Your task to perform on an android device: turn on the 12-hour format for clock Image 0: 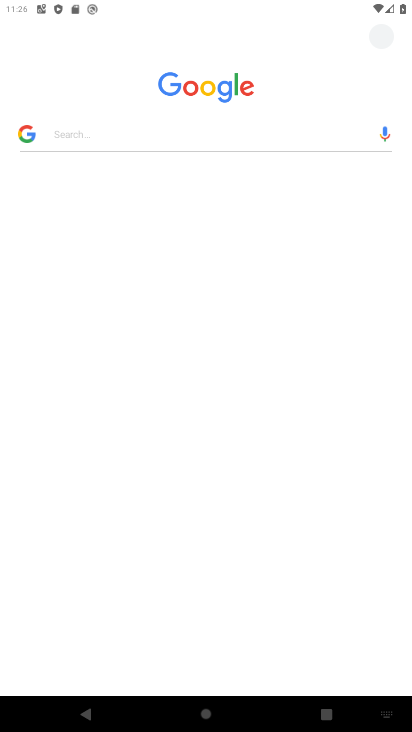
Step 0: press home button
Your task to perform on an android device: turn on the 12-hour format for clock Image 1: 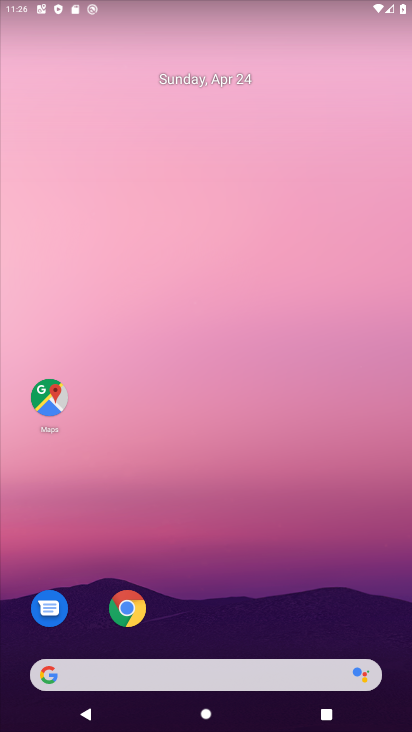
Step 1: drag from (234, 525) to (220, 88)
Your task to perform on an android device: turn on the 12-hour format for clock Image 2: 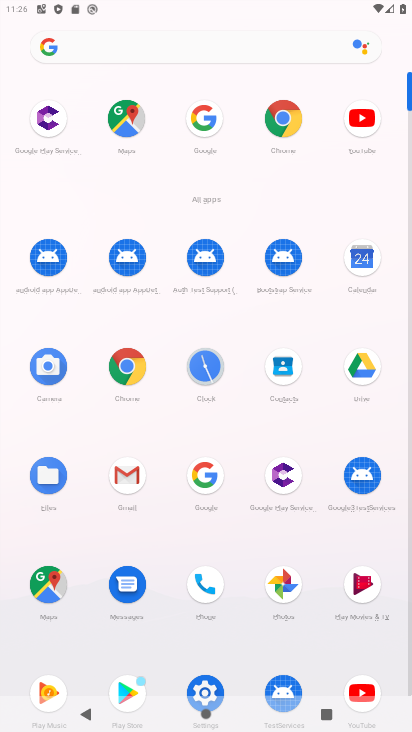
Step 2: click (201, 367)
Your task to perform on an android device: turn on the 12-hour format for clock Image 3: 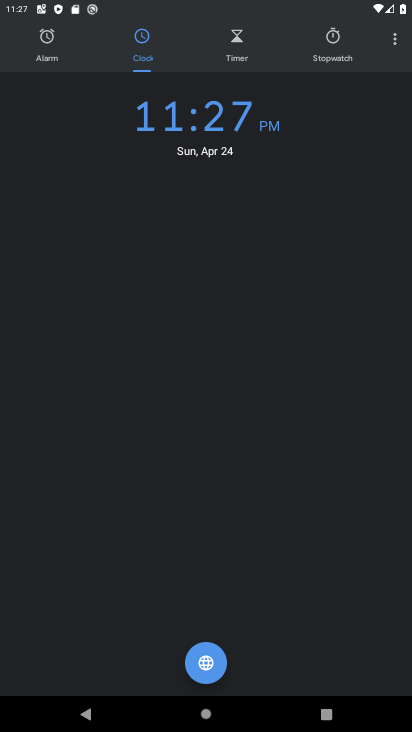
Step 3: click (396, 43)
Your task to perform on an android device: turn on the 12-hour format for clock Image 4: 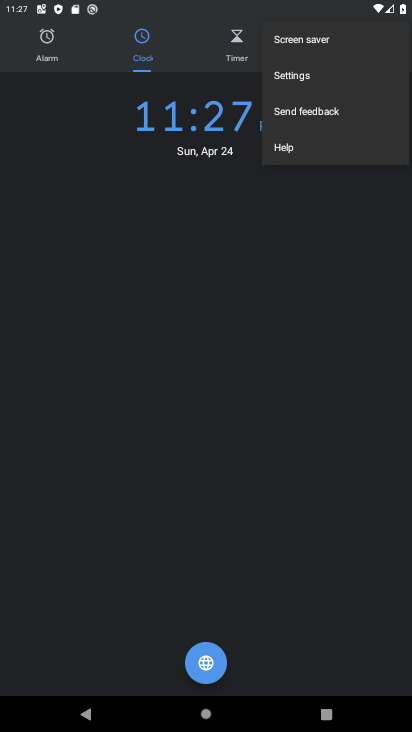
Step 4: click (297, 75)
Your task to perform on an android device: turn on the 12-hour format for clock Image 5: 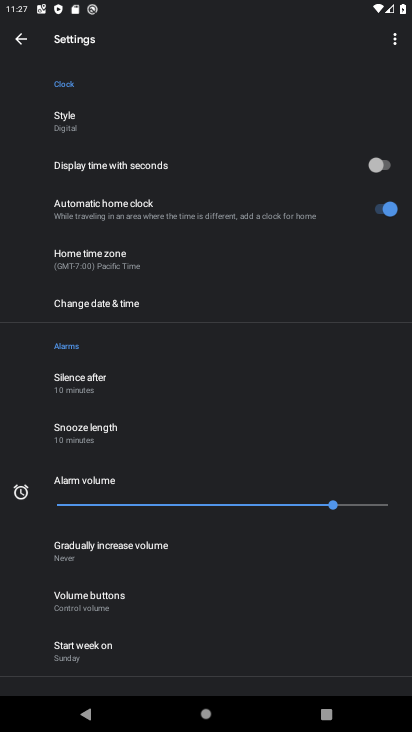
Step 5: click (107, 302)
Your task to perform on an android device: turn on the 12-hour format for clock Image 6: 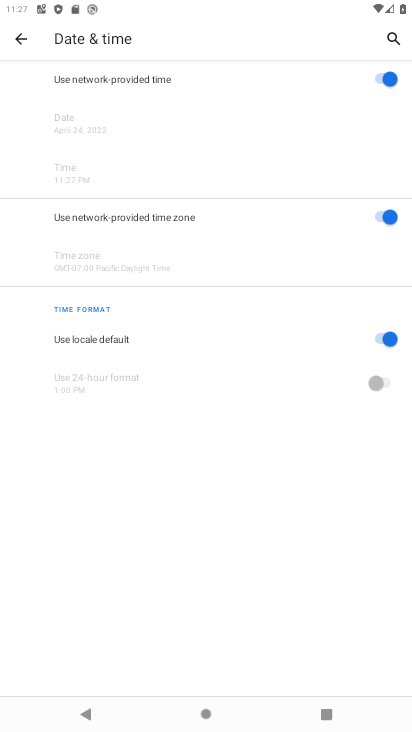
Step 6: task complete